Your task to perform on an android device: open app "Adobe Acrobat Reader" (install if not already installed) and enter user name: "nondescriptly@inbox.com" and password: "negating" Image 0: 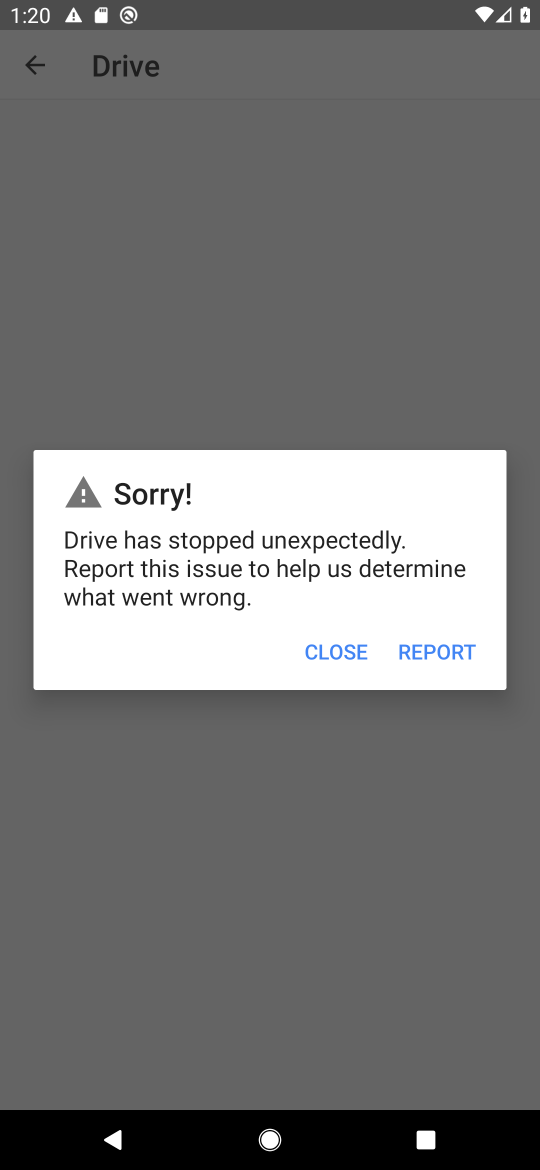
Step 0: press home button
Your task to perform on an android device: open app "Adobe Acrobat Reader" (install if not already installed) and enter user name: "nondescriptly@inbox.com" and password: "negating" Image 1: 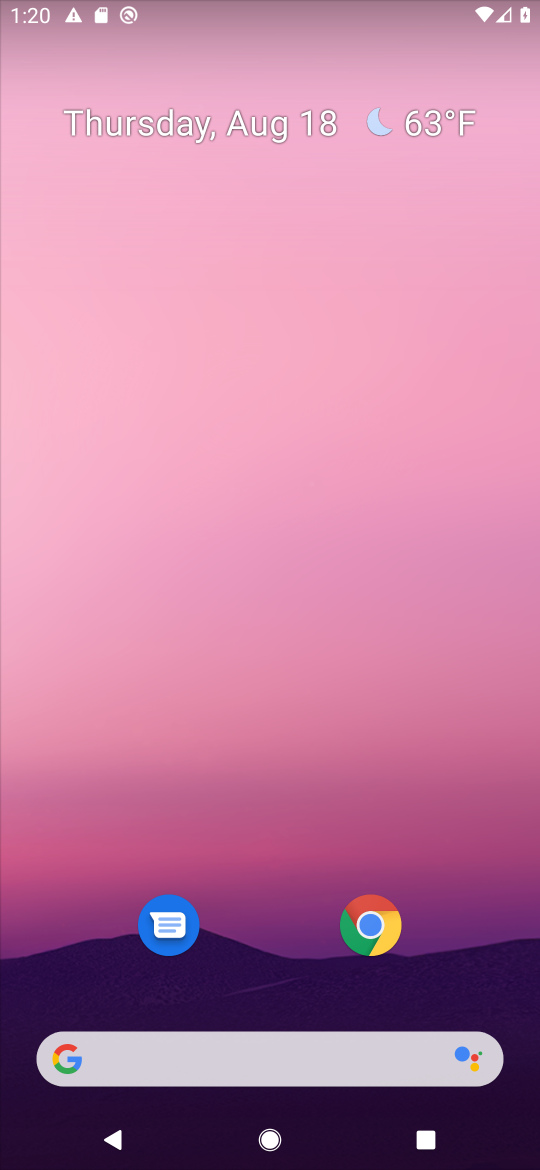
Step 1: drag from (263, 867) to (354, 92)
Your task to perform on an android device: open app "Adobe Acrobat Reader" (install if not already installed) and enter user name: "nondescriptly@inbox.com" and password: "negating" Image 2: 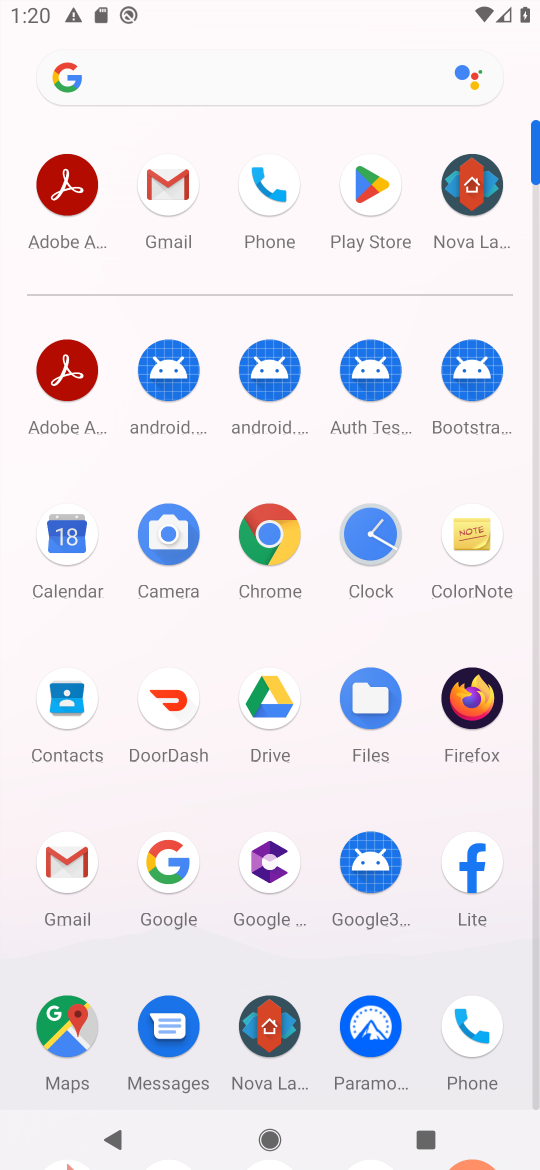
Step 2: click (369, 206)
Your task to perform on an android device: open app "Adobe Acrobat Reader" (install if not already installed) and enter user name: "nondescriptly@inbox.com" and password: "negating" Image 3: 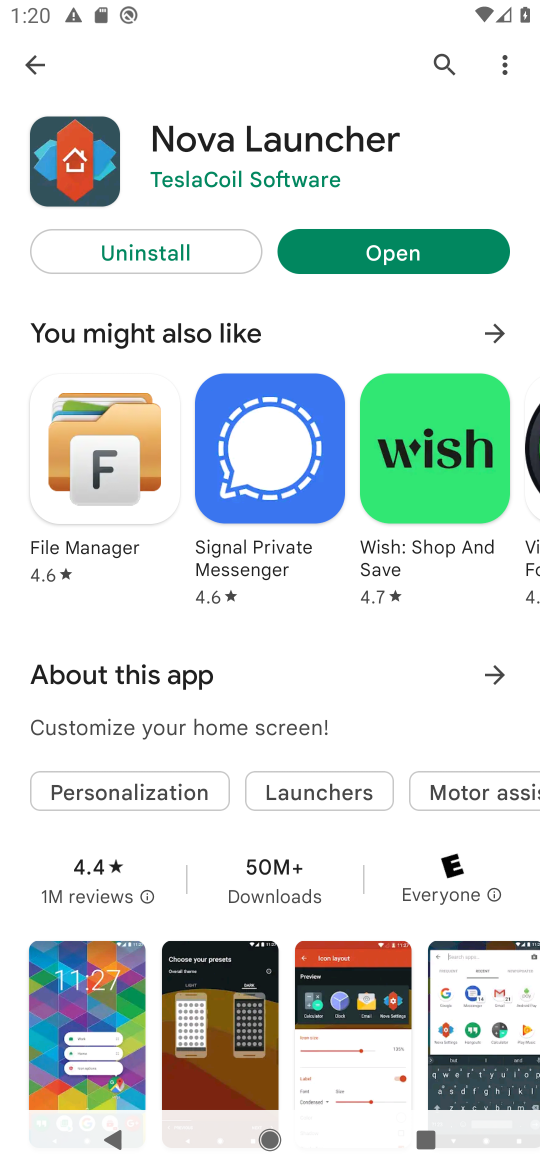
Step 3: click (35, 53)
Your task to perform on an android device: open app "Adobe Acrobat Reader" (install if not already installed) and enter user name: "nondescriptly@inbox.com" and password: "negating" Image 4: 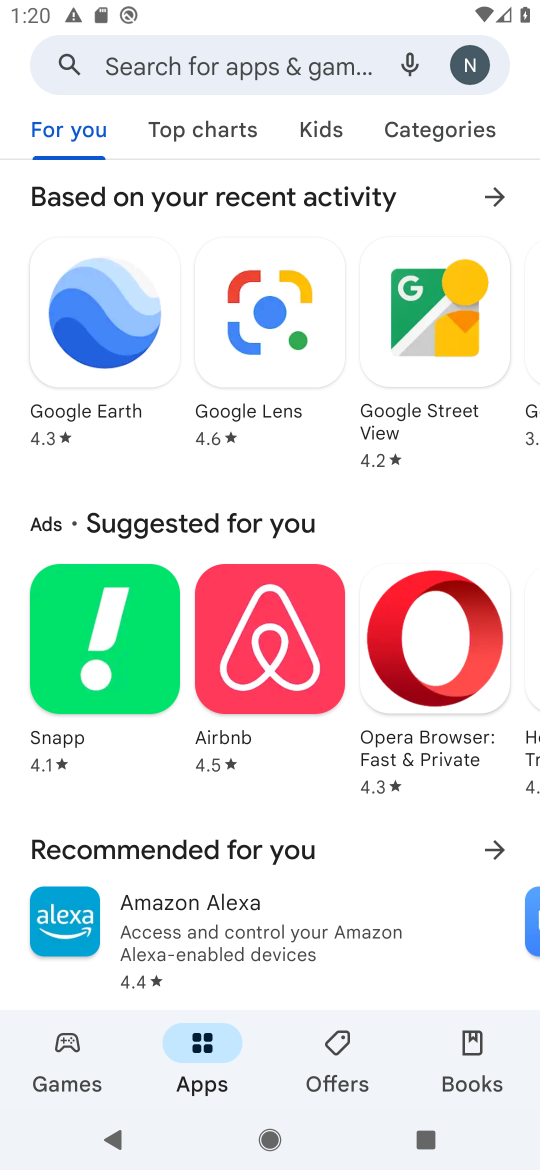
Step 4: click (261, 53)
Your task to perform on an android device: open app "Adobe Acrobat Reader" (install if not already installed) and enter user name: "nondescriptly@inbox.com" and password: "negating" Image 5: 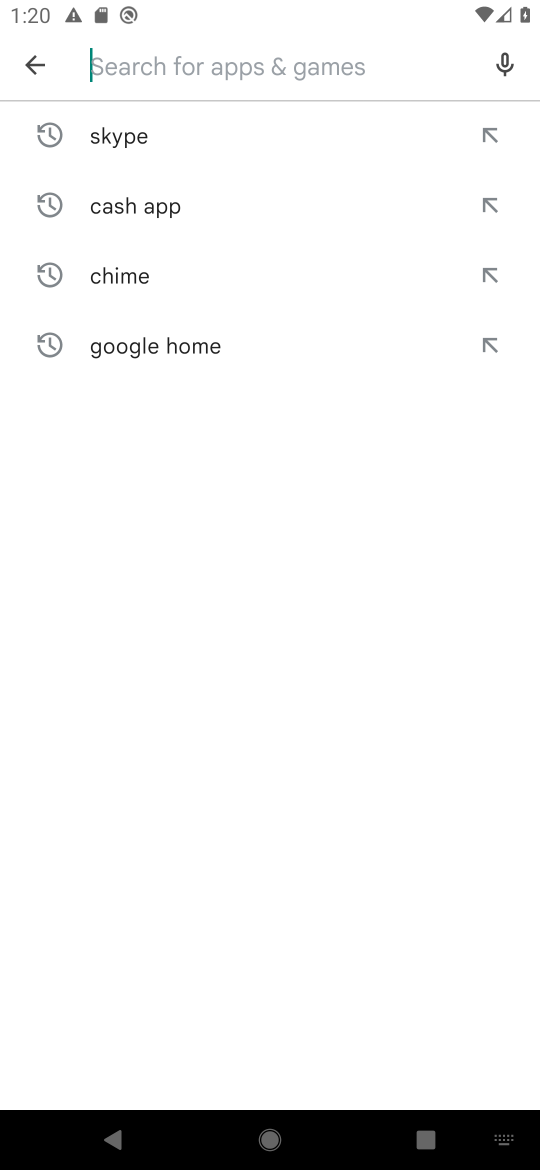
Step 5: type "Adobe Acrobat Reader"
Your task to perform on an android device: open app "Adobe Acrobat Reader" (install if not already installed) and enter user name: "nondescriptly@inbox.com" and password: "negating" Image 6: 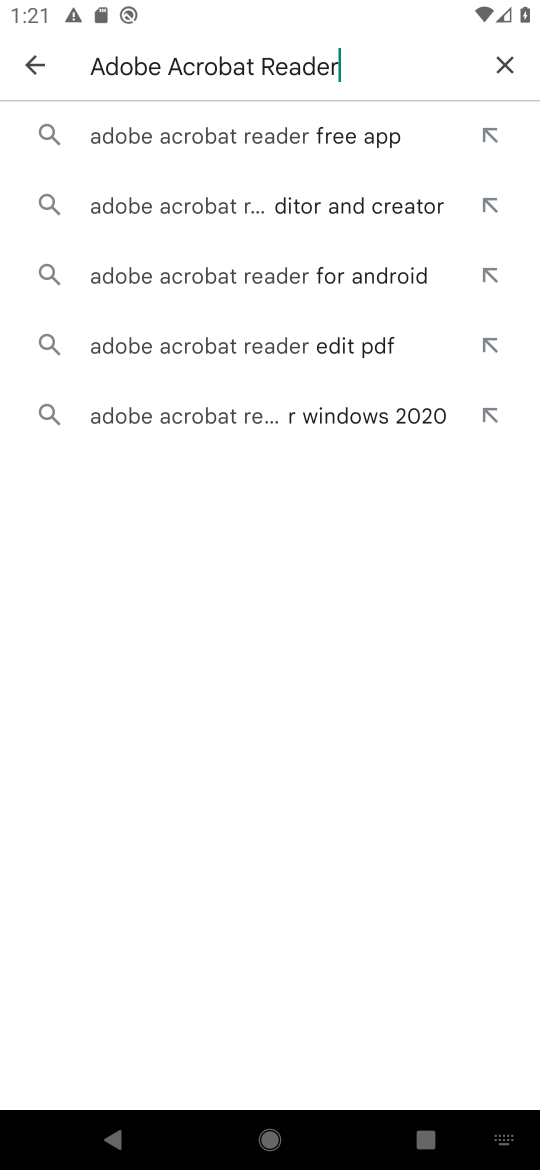
Step 6: click (219, 136)
Your task to perform on an android device: open app "Adobe Acrobat Reader" (install if not already installed) and enter user name: "nondescriptly@inbox.com" and password: "negating" Image 7: 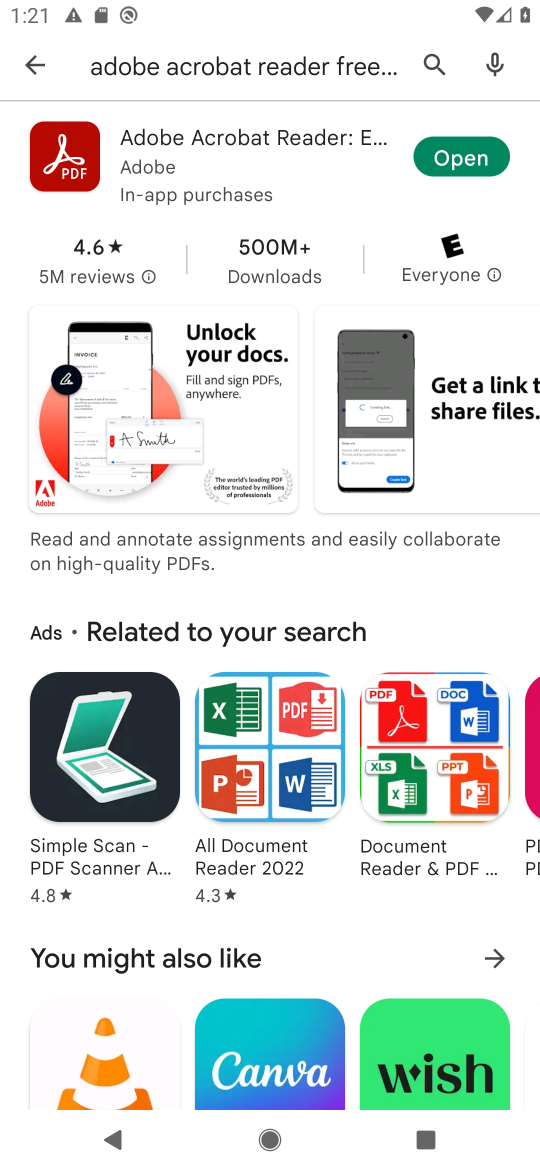
Step 7: click (467, 158)
Your task to perform on an android device: open app "Adobe Acrobat Reader" (install if not already installed) and enter user name: "nondescriptly@inbox.com" and password: "negating" Image 8: 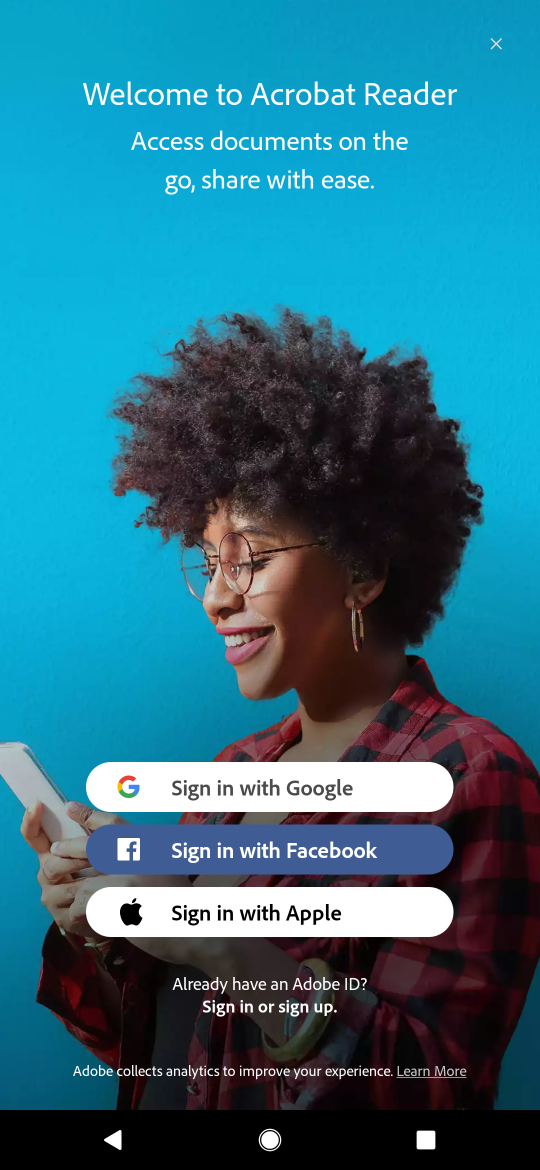
Step 8: click (224, 1006)
Your task to perform on an android device: open app "Adobe Acrobat Reader" (install if not already installed) and enter user name: "nondescriptly@inbox.com" and password: "negating" Image 9: 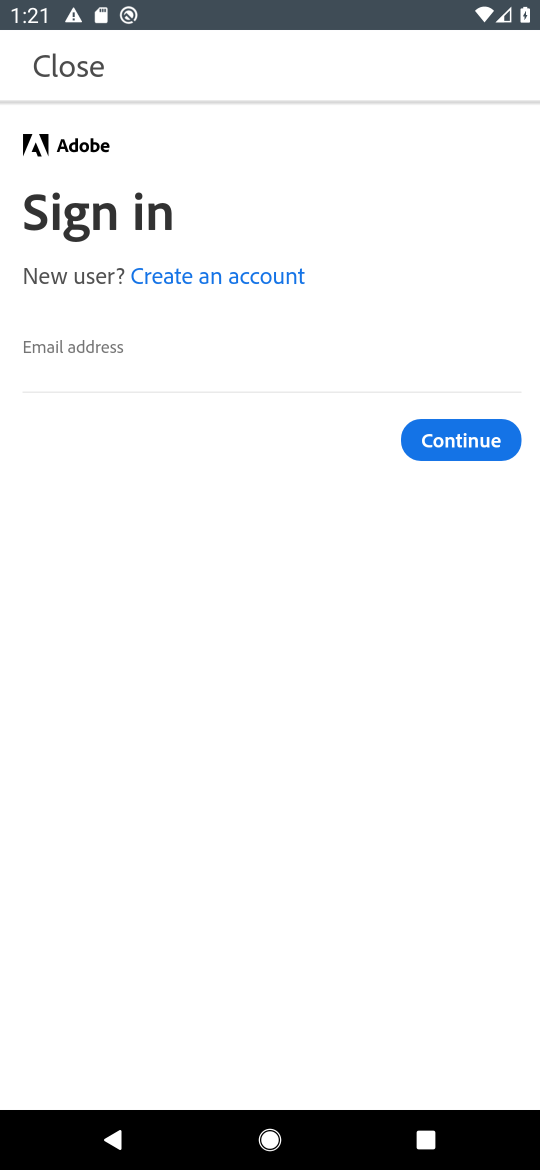
Step 9: click (219, 363)
Your task to perform on an android device: open app "Adobe Acrobat Reader" (install if not already installed) and enter user name: "nondescriptly@inbox.com" and password: "negating" Image 10: 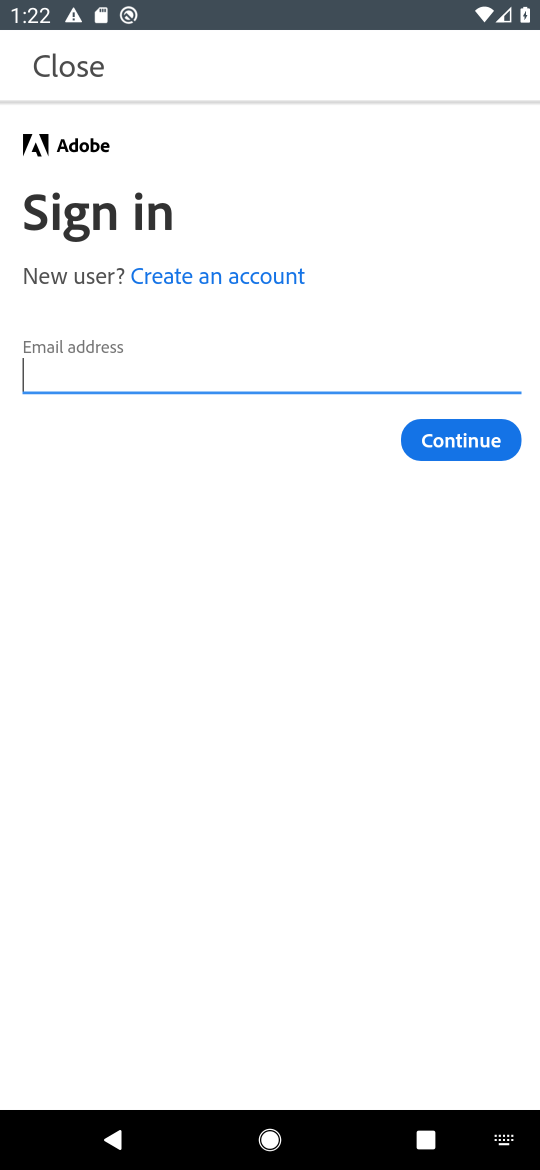
Step 10: type "nondescriptly@inbox.com"
Your task to perform on an android device: open app "Adobe Acrobat Reader" (install if not already installed) and enter user name: "nondescriptly@inbox.com" and password: "negating" Image 11: 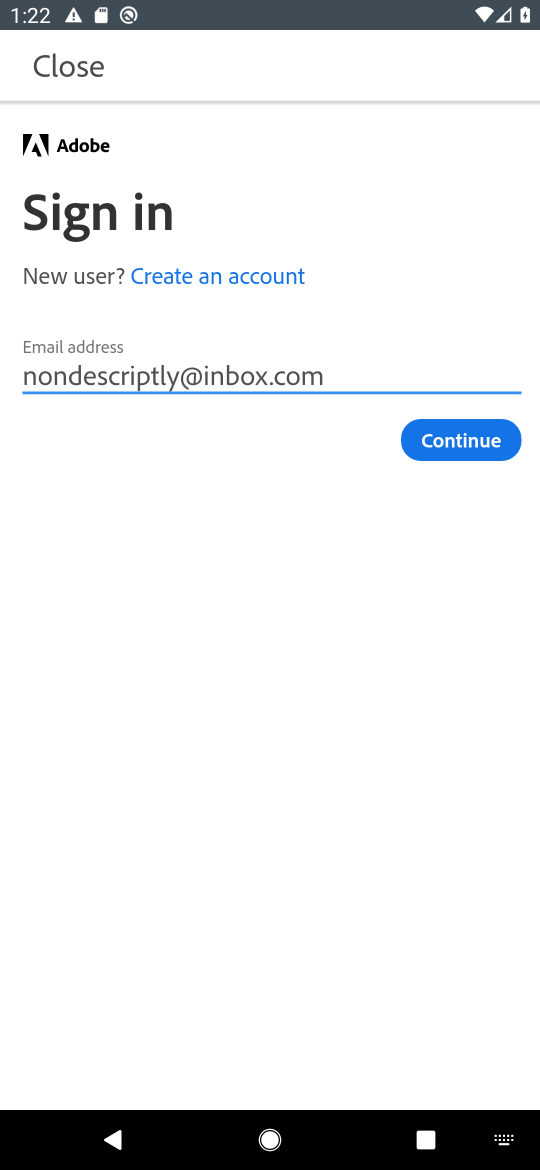
Step 11: click (480, 441)
Your task to perform on an android device: open app "Adobe Acrobat Reader" (install if not already installed) and enter user name: "nondescriptly@inbox.com" and password: "negating" Image 12: 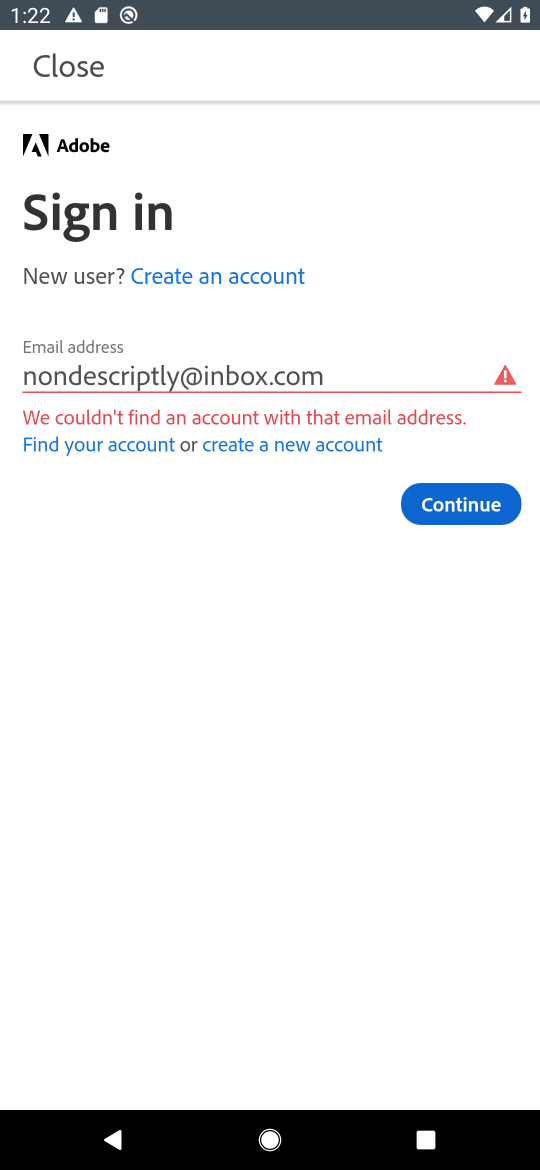
Step 12: task complete